Your task to perform on an android device: open app "DoorDash - Food Delivery" (install if not already installed) Image 0: 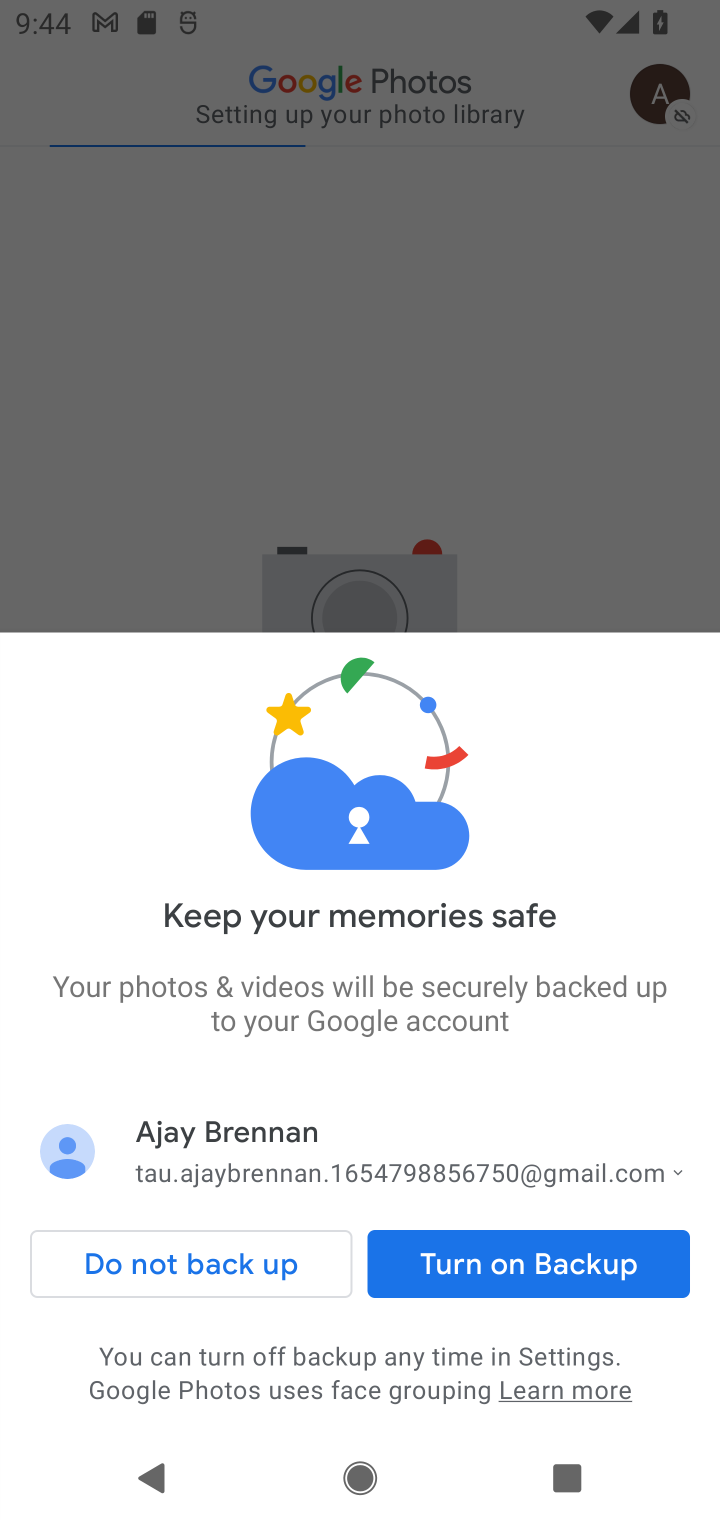
Step 0: press home button
Your task to perform on an android device: open app "DoorDash - Food Delivery" (install if not already installed) Image 1: 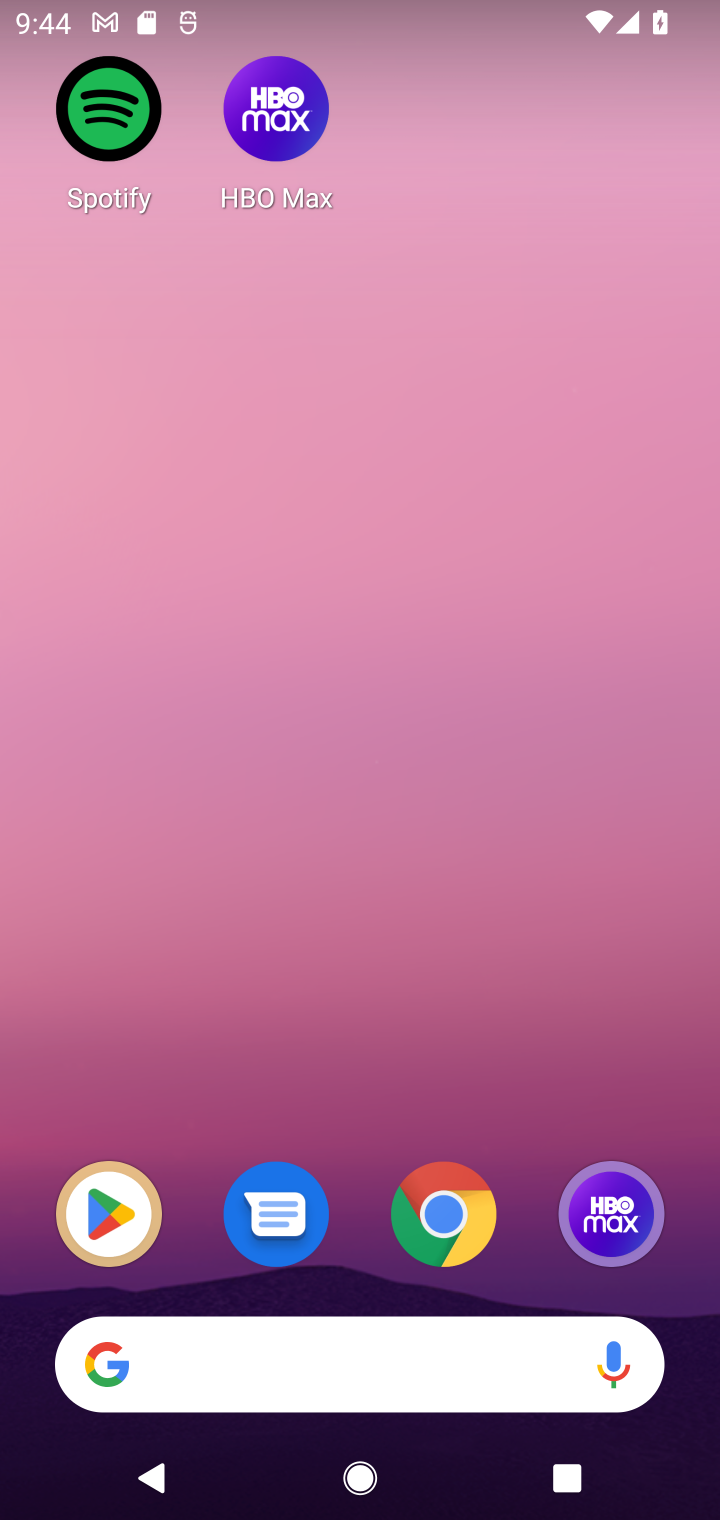
Step 1: click (115, 1193)
Your task to perform on an android device: open app "DoorDash - Food Delivery" (install if not already installed) Image 2: 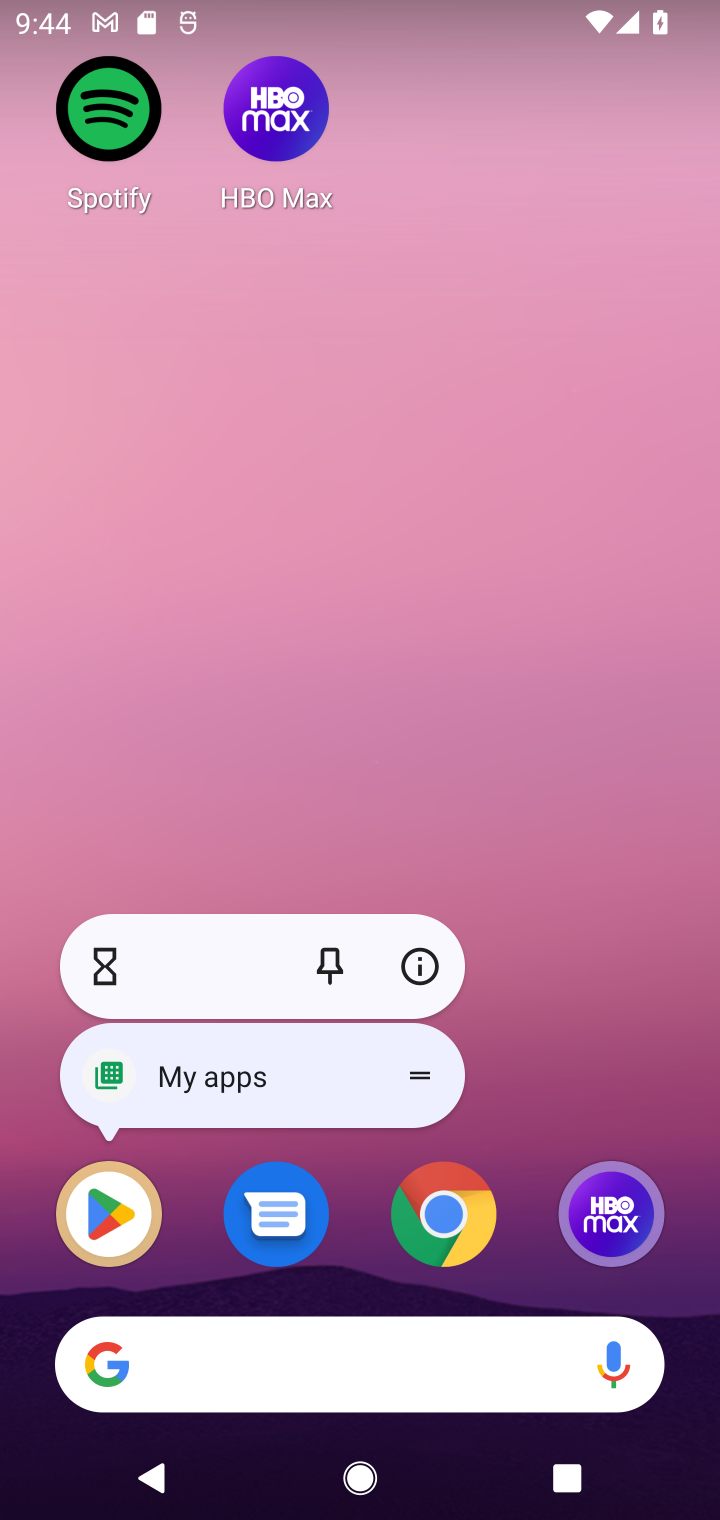
Step 2: click (105, 1227)
Your task to perform on an android device: open app "DoorDash - Food Delivery" (install if not already installed) Image 3: 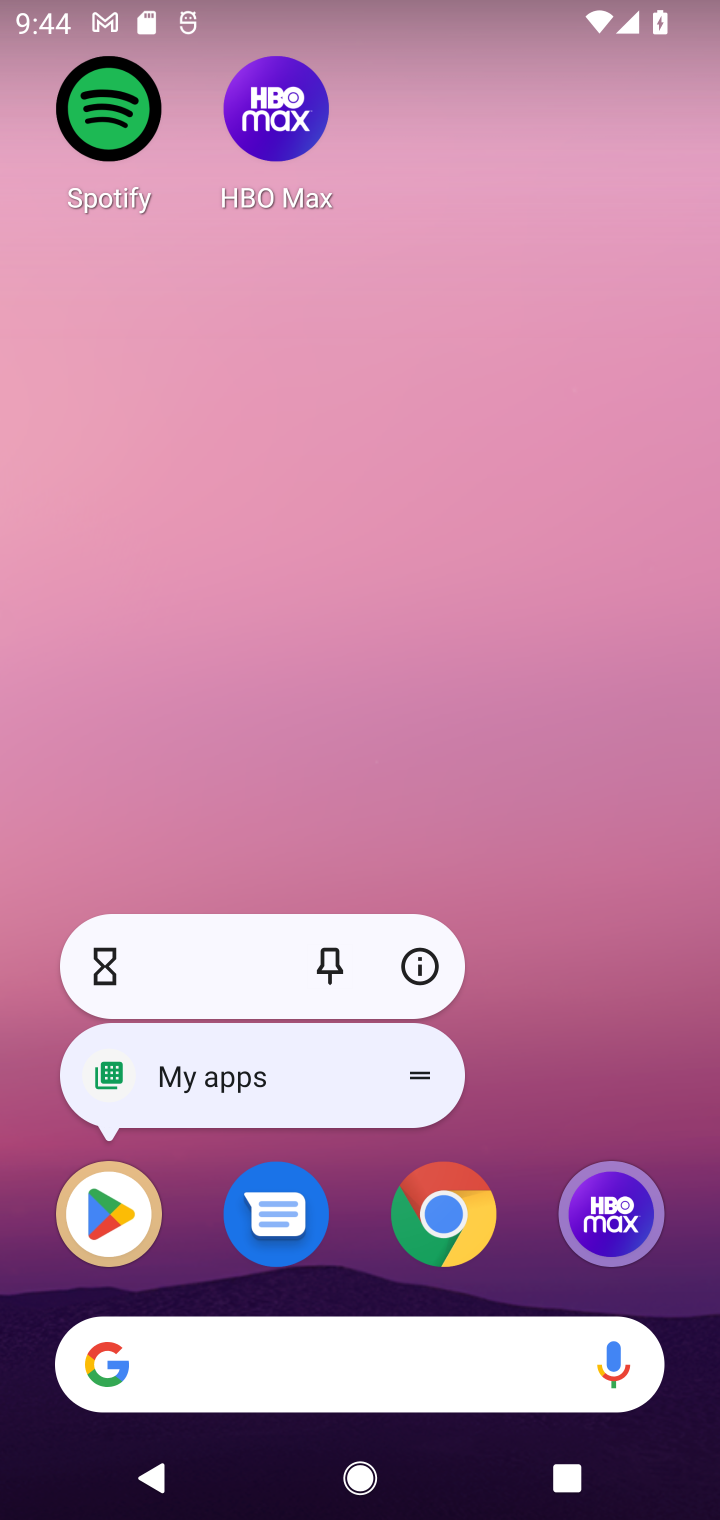
Step 3: click (117, 1217)
Your task to perform on an android device: open app "DoorDash - Food Delivery" (install if not already installed) Image 4: 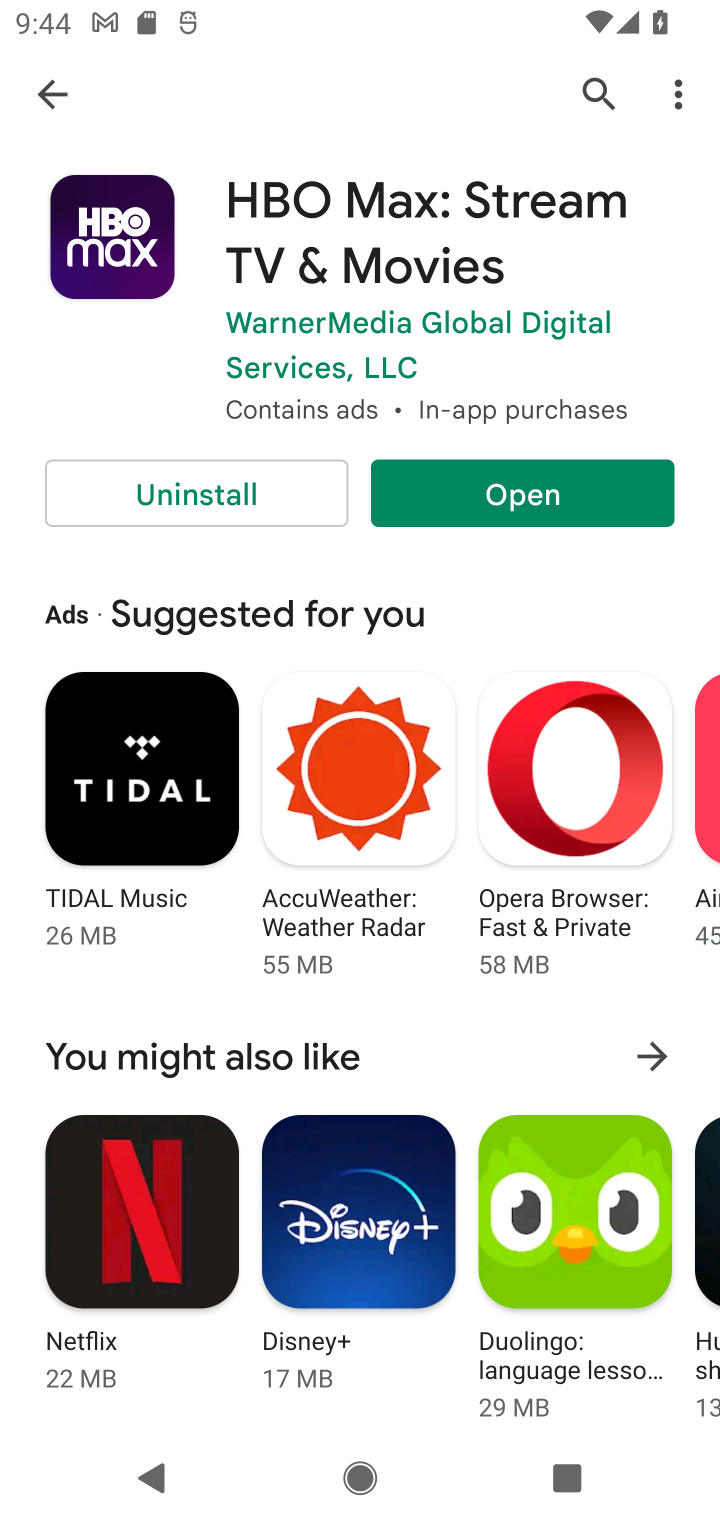
Step 4: click (592, 90)
Your task to perform on an android device: open app "DoorDash - Food Delivery" (install if not already installed) Image 5: 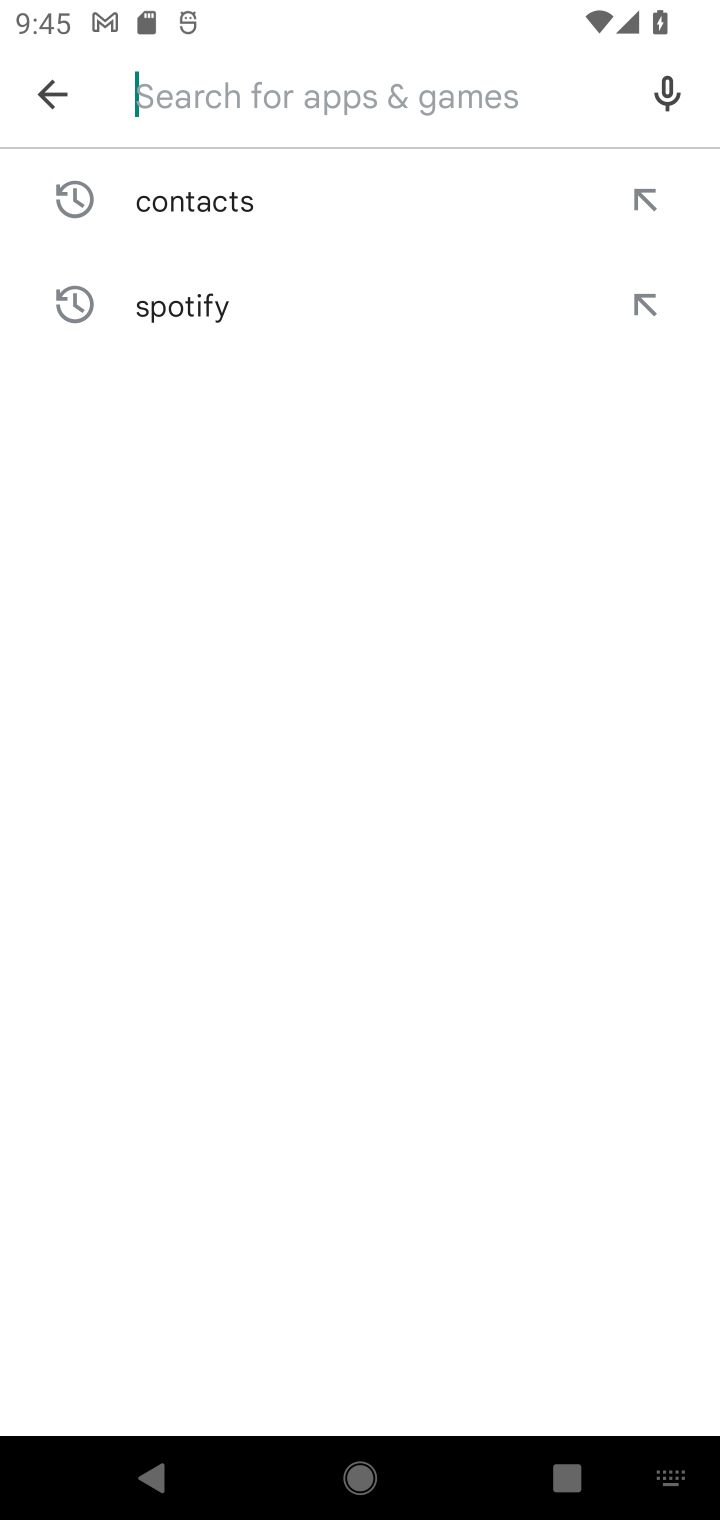
Step 5: type "DoorDash - Food Delivery"
Your task to perform on an android device: open app "DoorDash - Food Delivery" (install if not already installed) Image 6: 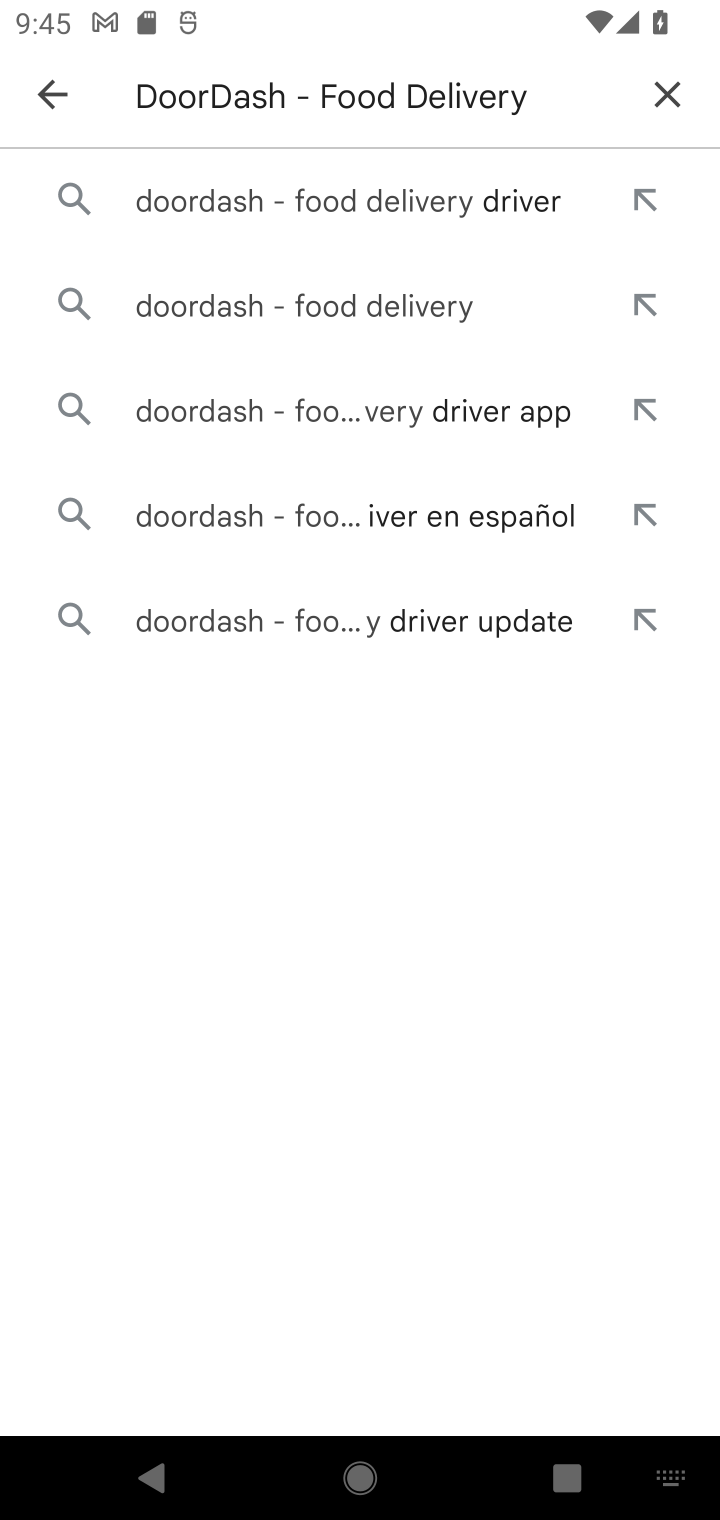
Step 6: click (448, 207)
Your task to perform on an android device: open app "DoorDash - Food Delivery" (install if not already installed) Image 7: 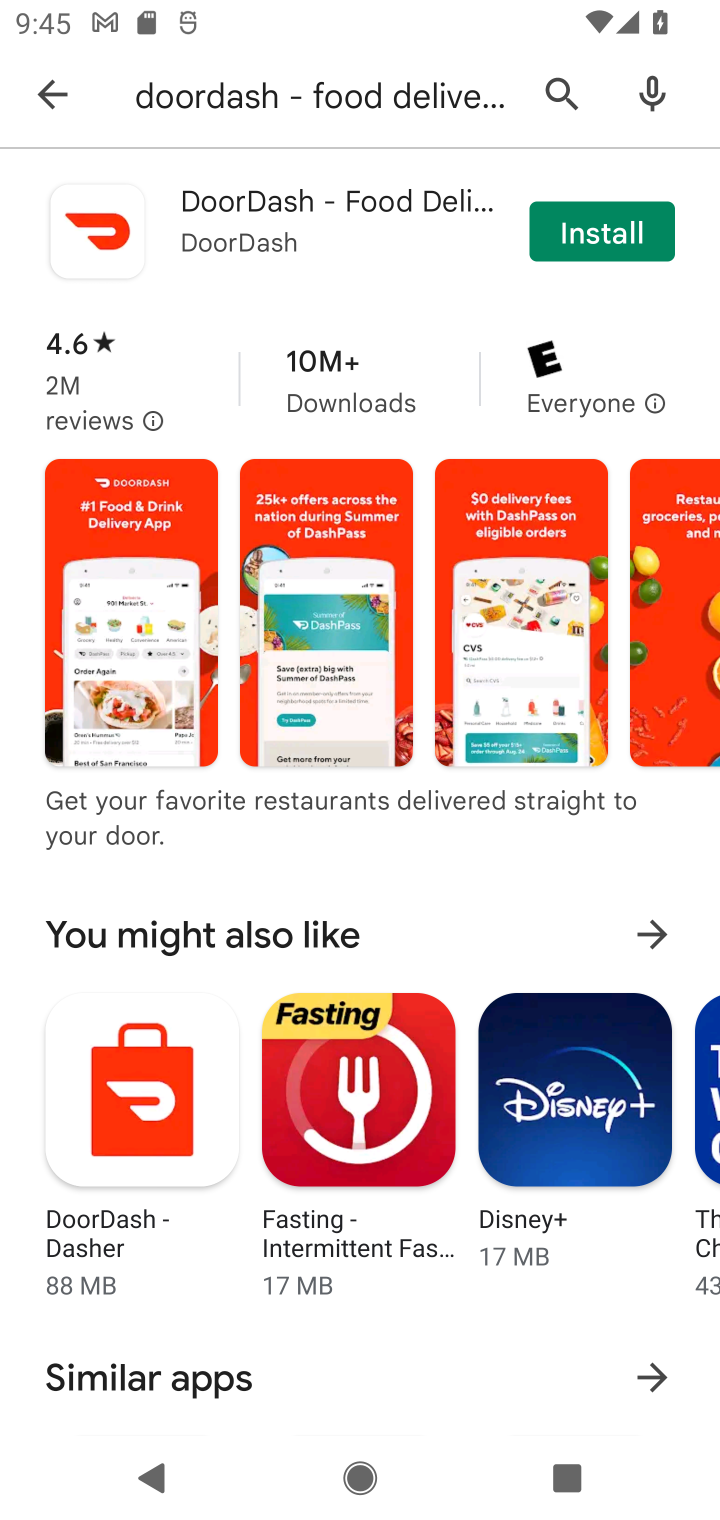
Step 7: click (590, 213)
Your task to perform on an android device: open app "DoorDash - Food Delivery" (install if not already installed) Image 8: 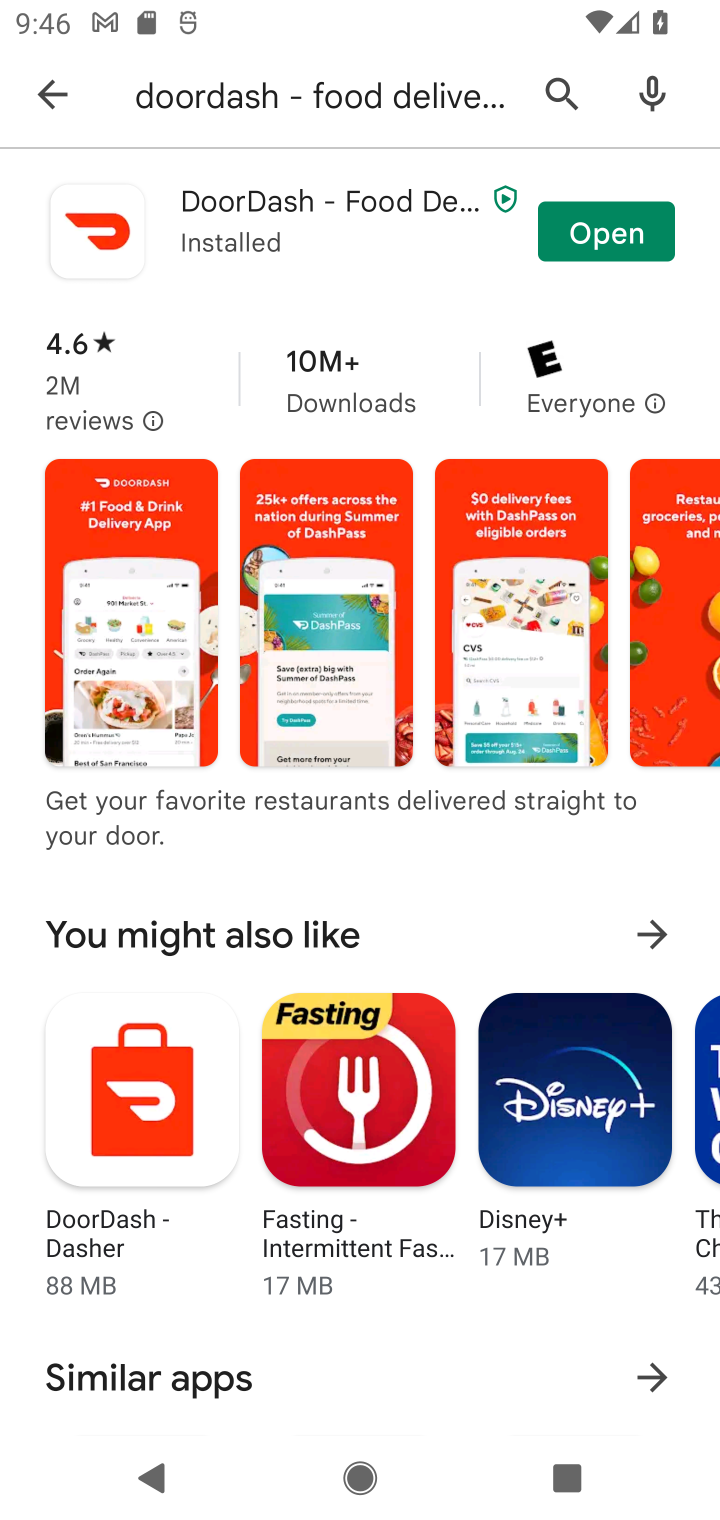
Step 8: click (610, 233)
Your task to perform on an android device: open app "DoorDash - Food Delivery" (install if not already installed) Image 9: 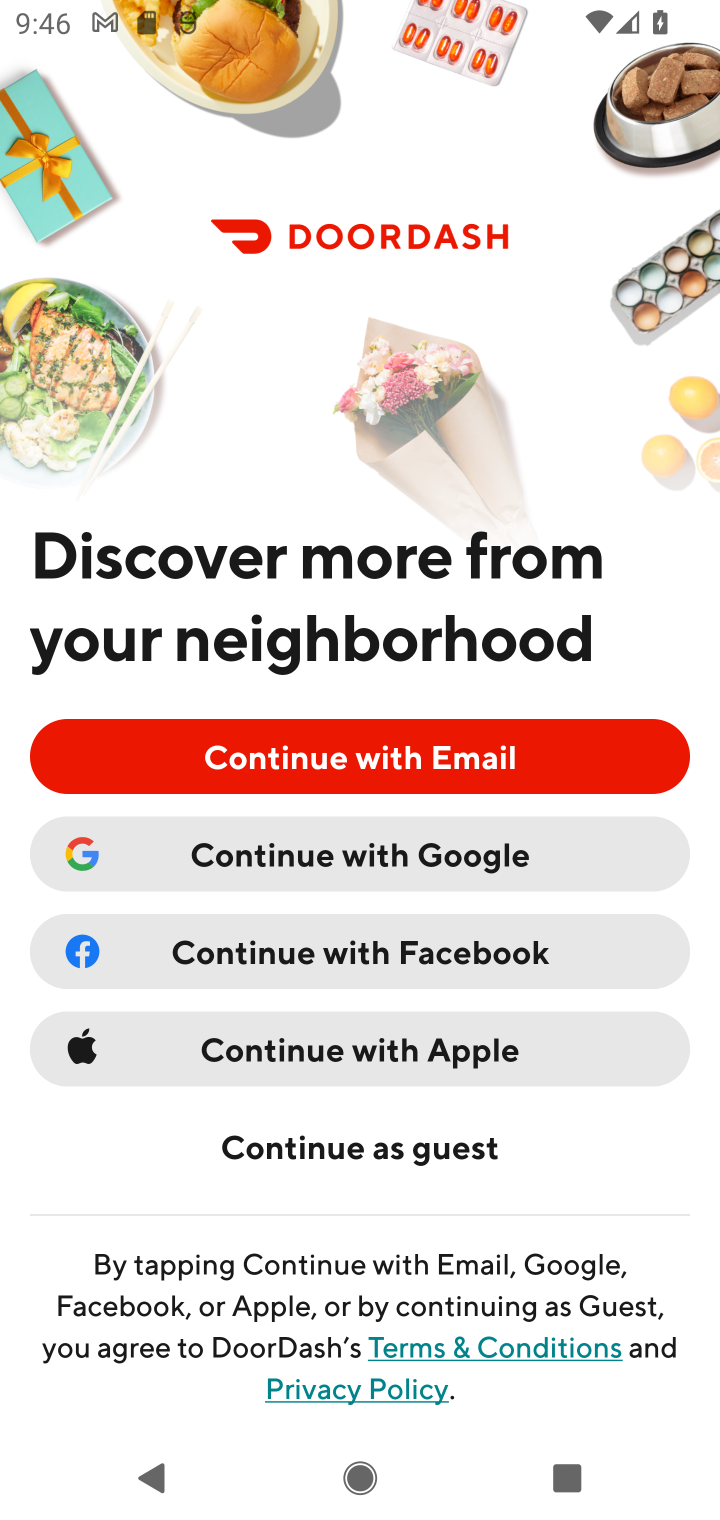
Step 9: task complete